Your task to perform on an android device: turn on airplane mode Image 0: 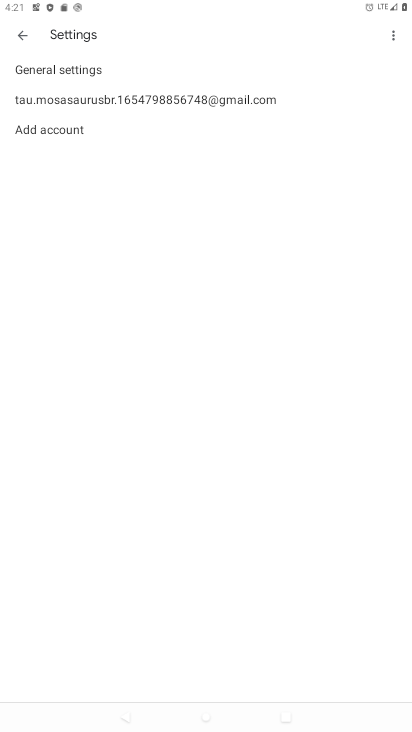
Step 0: press home button
Your task to perform on an android device: turn on airplane mode Image 1: 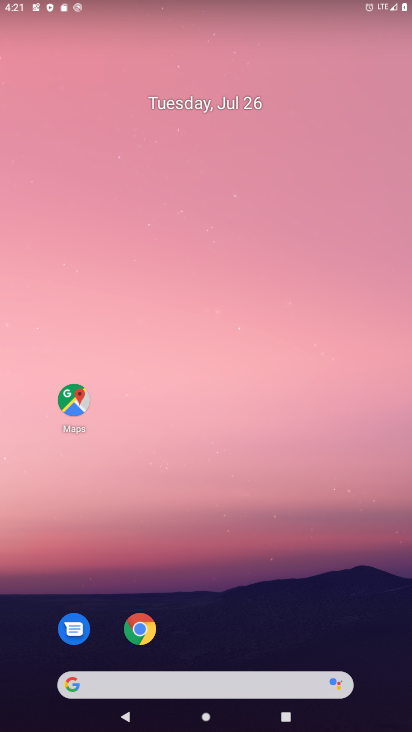
Step 1: drag from (227, 721) to (229, 77)
Your task to perform on an android device: turn on airplane mode Image 2: 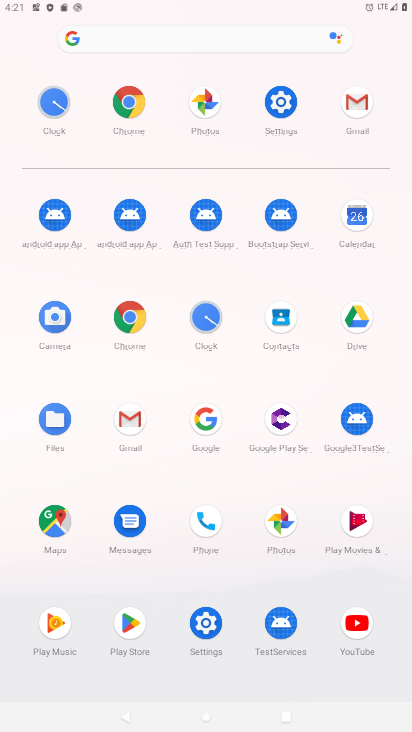
Step 2: click (280, 98)
Your task to perform on an android device: turn on airplane mode Image 3: 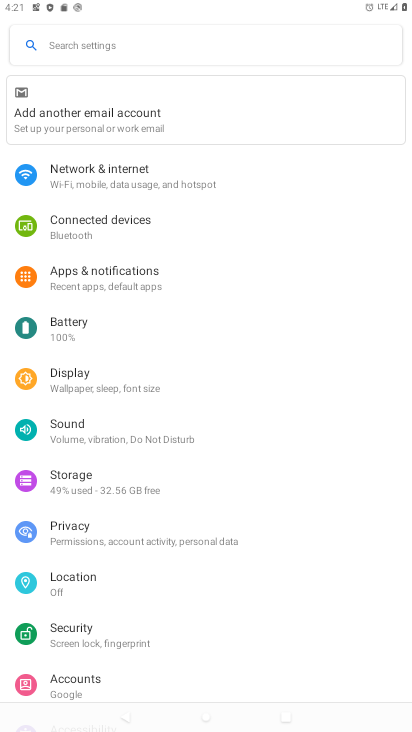
Step 3: click (73, 175)
Your task to perform on an android device: turn on airplane mode Image 4: 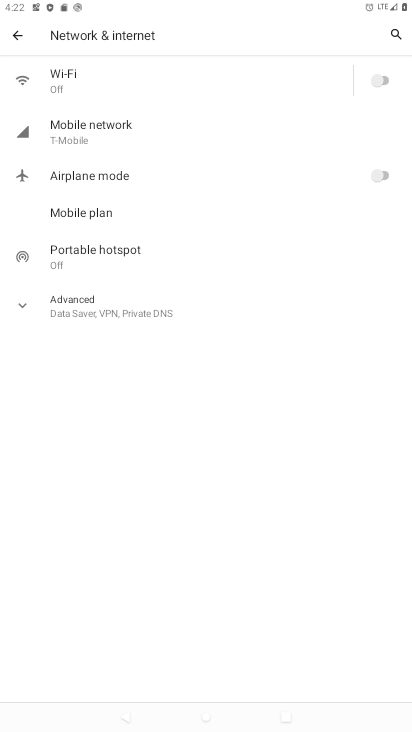
Step 4: click (387, 172)
Your task to perform on an android device: turn on airplane mode Image 5: 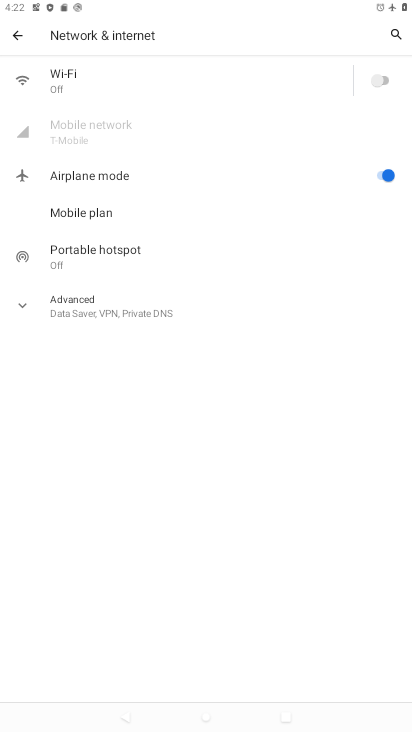
Step 5: task complete